Your task to perform on an android device: allow notifications from all sites in the chrome app Image 0: 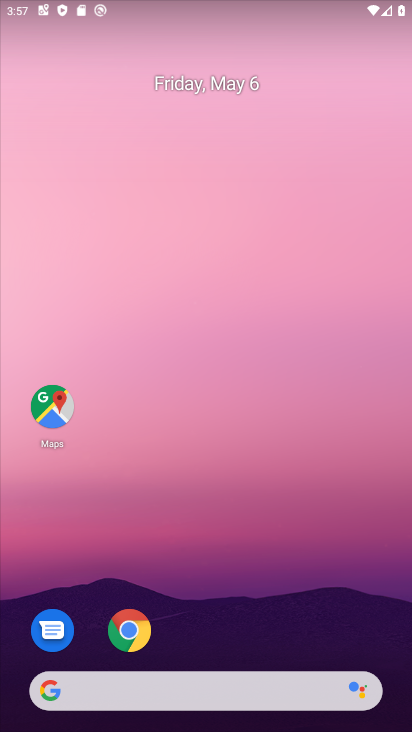
Step 0: click (125, 620)
Your task to perform on an android device: allow notifications from all sites in the chrome app Image 1: 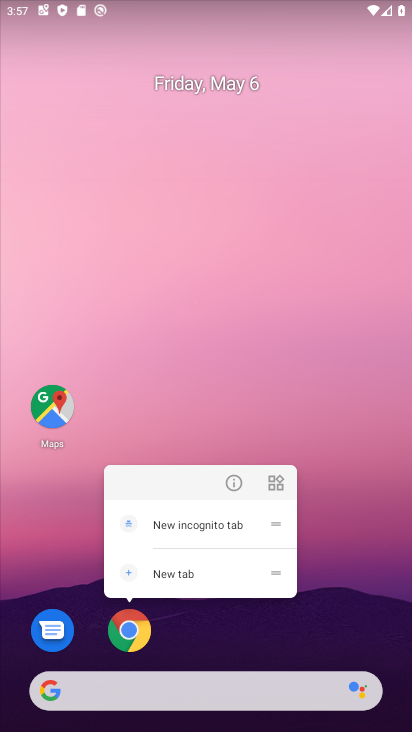
Step 1: click (123, 630)
Your task to perform on an android device: allow notifications from all sites in the chrome app Image 2: 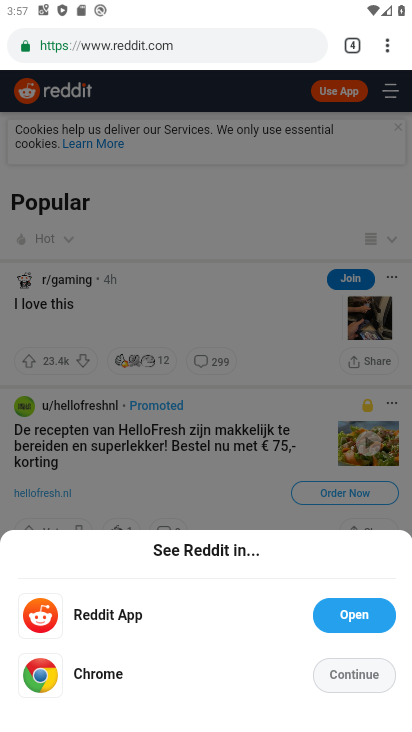
Step 2: click (387, 45)
Your task to perform on an android device: allow notifications from all sites in the chrome app Image 3: 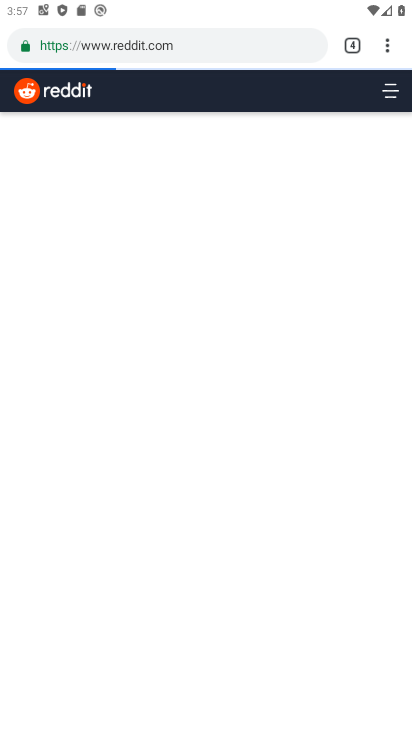
Step 3: click (220, 555)
Your task to perform on an android device: allow notifications from all sites in the chrome app Image 4: 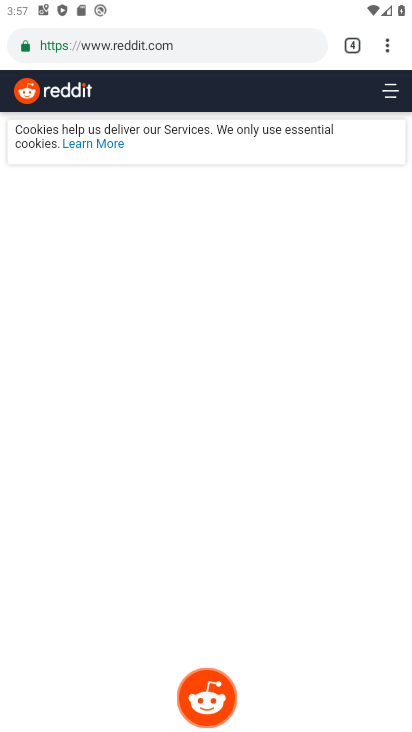
Step 4: drag from (390, 50) to (201, 545)
Your task to perform on an android device: allow notifications from all sites in the chrome app Image 5: 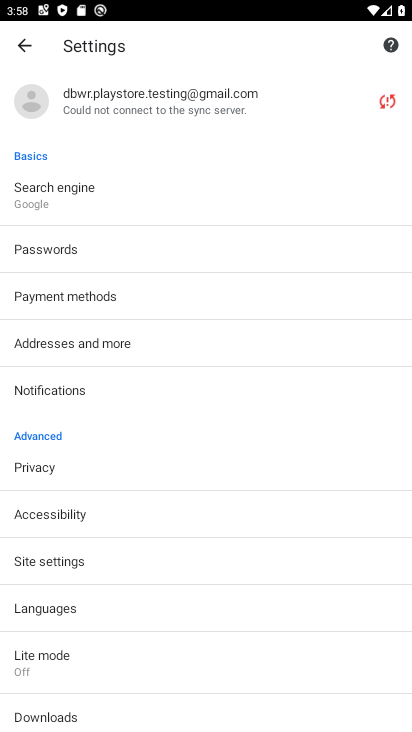
Step 5: click (77, 379)
Your task to perform on an android device: allow notifications from all sites in the chrome app Image 6: 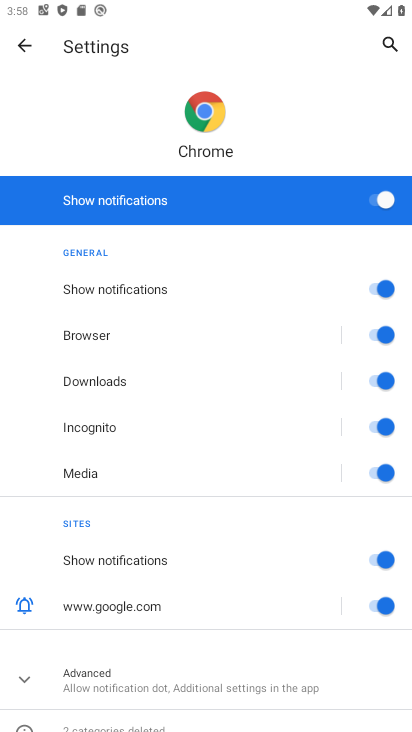
Step 6: task complete